Your task to perform on an android device: turn off improve location accuracy Image 0: 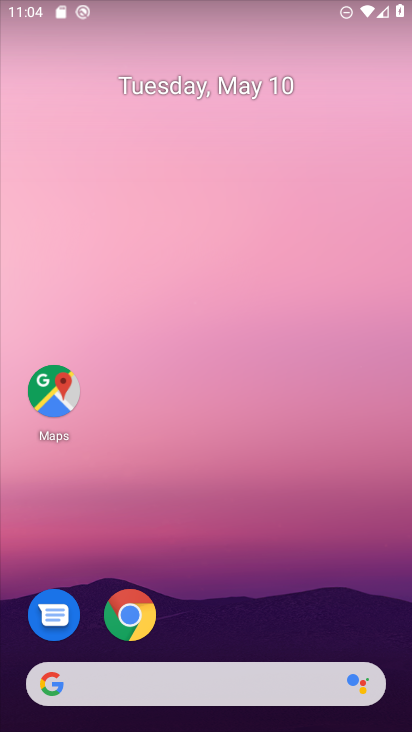
Step 0: drag from (192, 632) to (273, 168)
Your task to perform on an android device: turn off improve location accuracy Image 1: 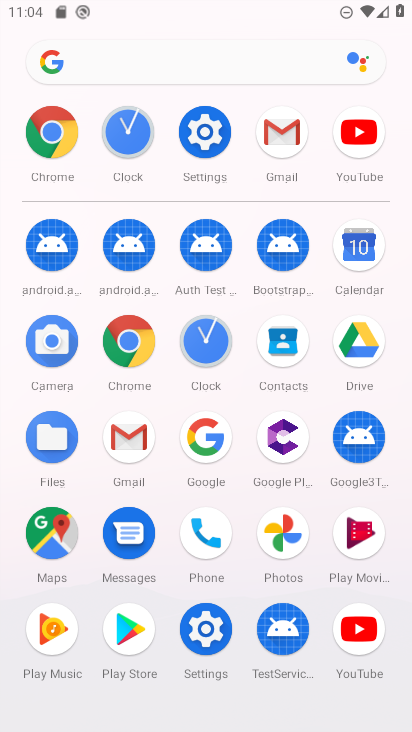
Step 1: click (203, 631)
Your task to perform on an android device: turn off improve location accuracy Image 2: 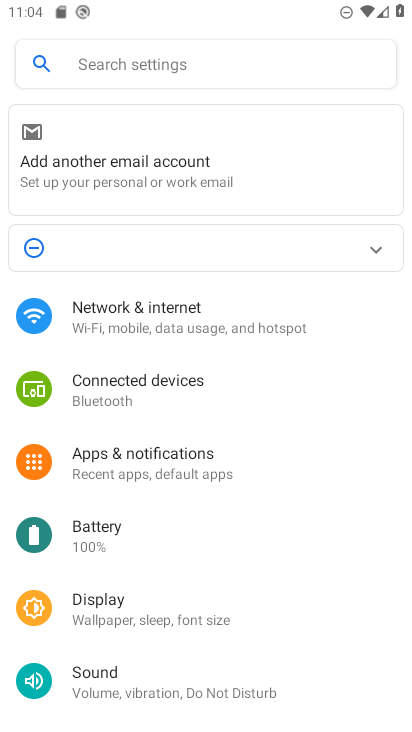
Step 2: drag from (203, 629) to (289, 267)
Your task to perform on an android device: turn off improve location accuracy Image 3: 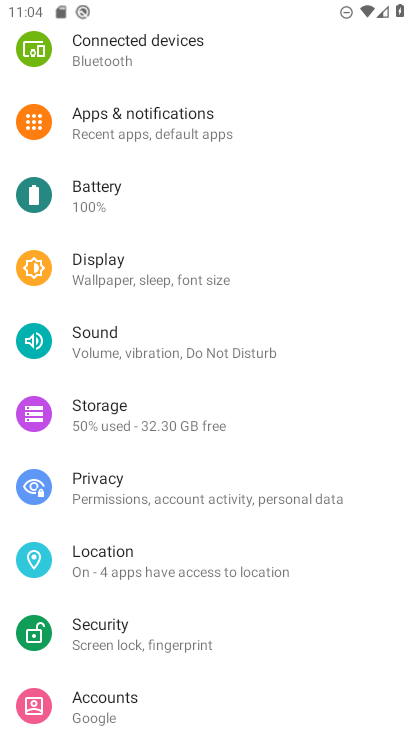
Step 3: click (154, 550)
Your task to perform on an android device: turn off improve location accuracy Image 4: 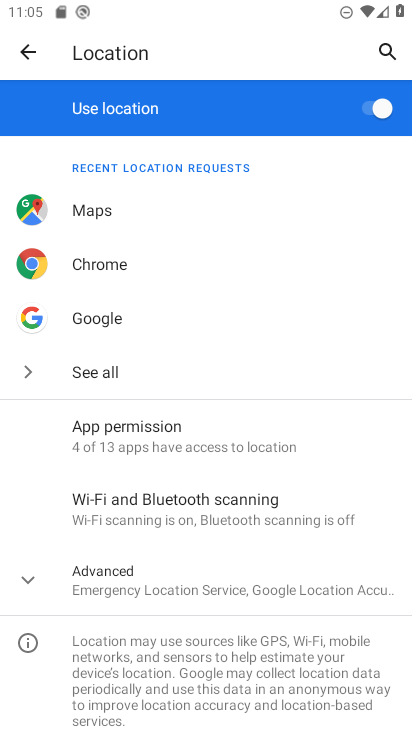
Step 4: click (141, 572)
Your task to perform on an android device: turn off improve location accuracy Image 5: 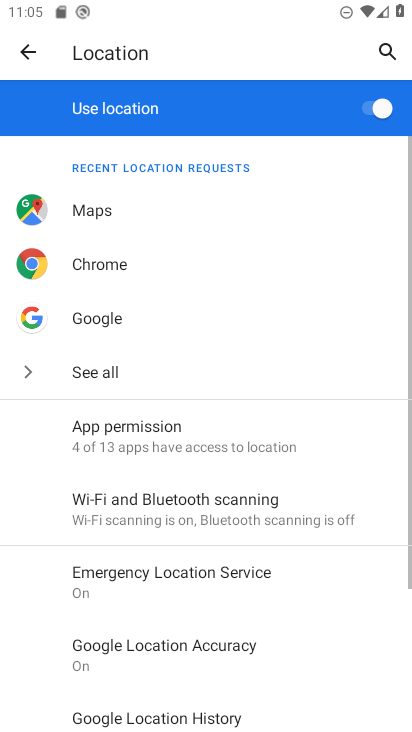
Step 5: drag from (236, 671) to (290, 358)
Your task to perform on an android device: turn off improve location accuracy Image 6: 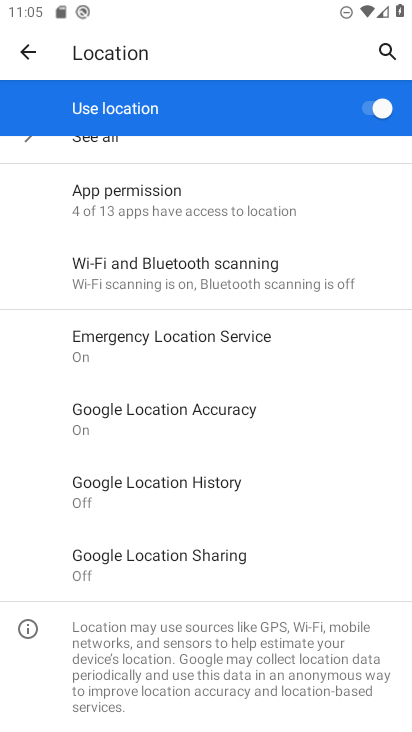
Step 6: click (171, 424)
Your task to perform on an android device: turn off improve location accuracy Image 7: 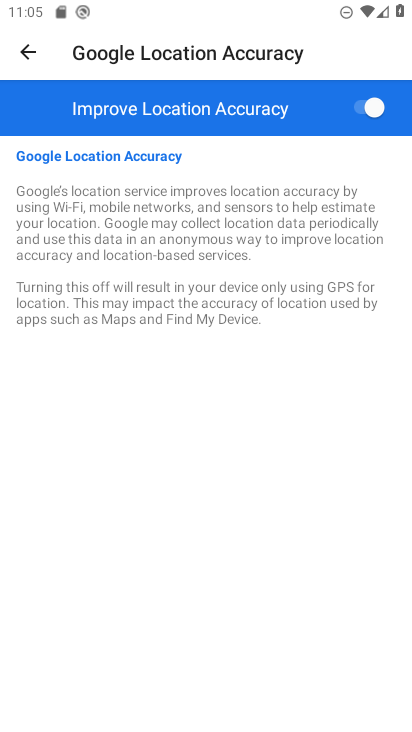
Step 7: click (373, 115)
Your task to perform on an android device: turn off improve location accuracy Image 8: 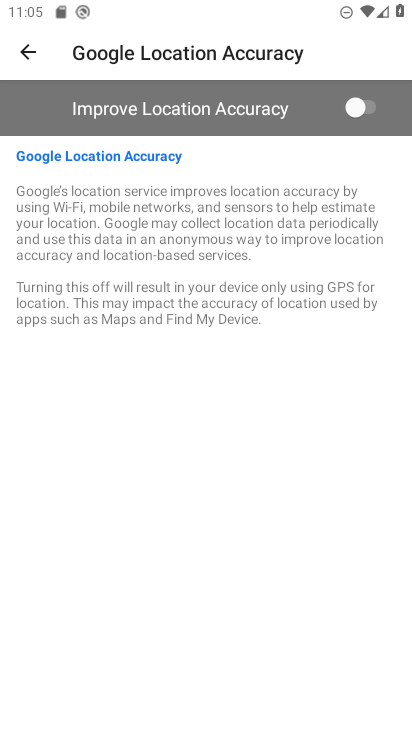
Step 8: task complete